Your task to perform on an android device: delete a single message in the gmail app Image 0: 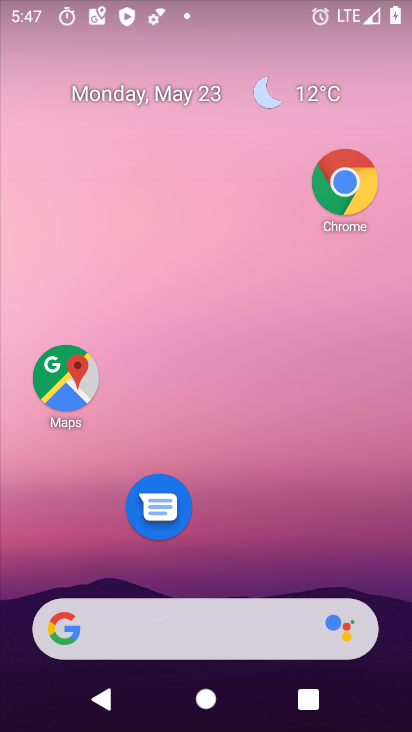
Step 0: drag from (202, 560) to (207, 163)
Your task to perform on an android device: delete a single message in the gmail app Image 1: 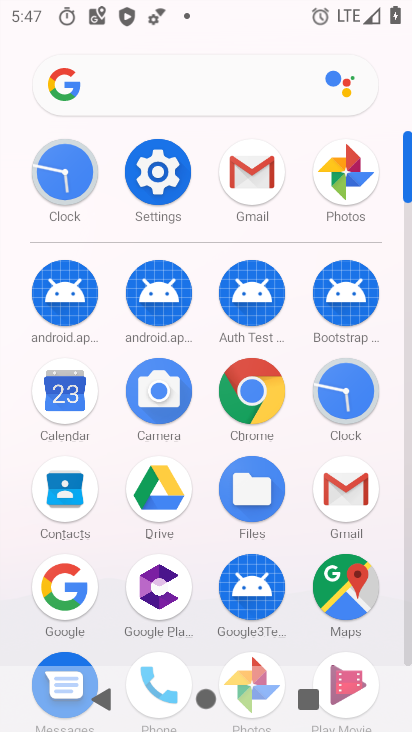
Step 1: click (252, 168)
Your task to perform on an android device: delete a single message in the gmail app Image 2: 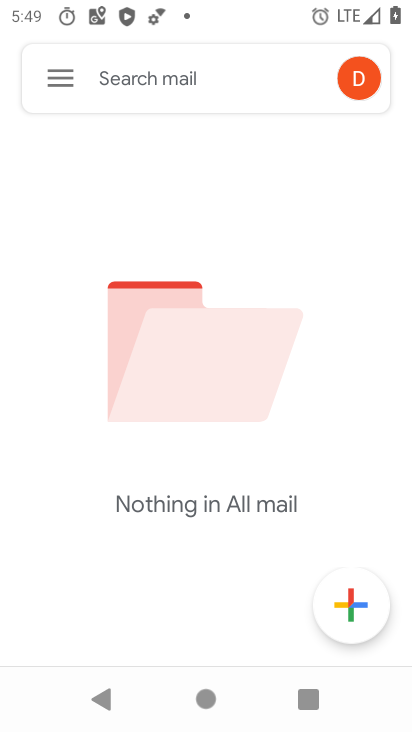
Step 2: task complete